Your task to perform on an android device: turn pop-ups off in chrome Image 0: 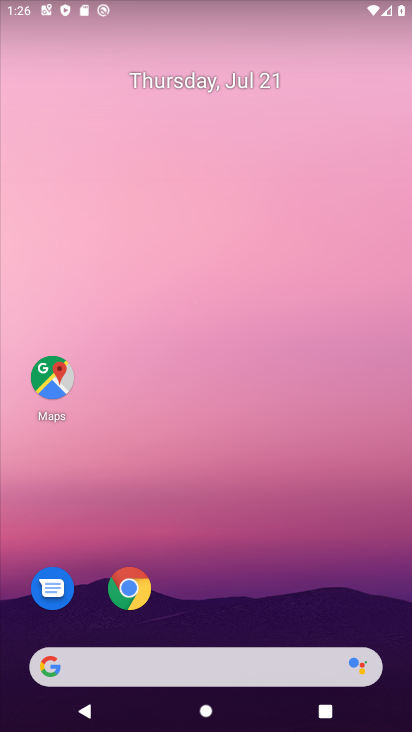
Step 0: click (138, 586)
Your task to perform on an android device: turn pop-ups off in chrome Image 1: 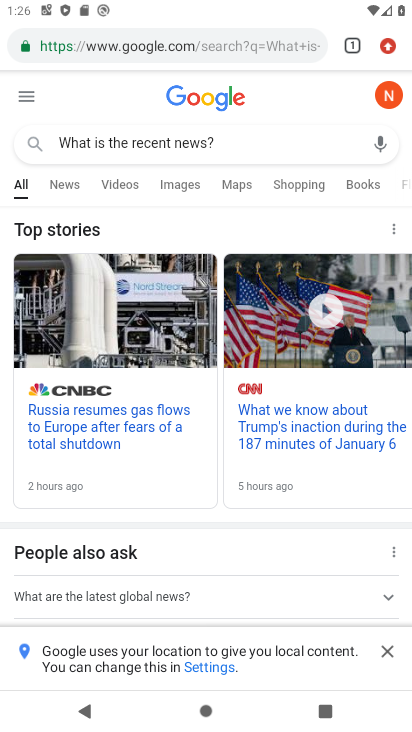
Step 1: click (387, 57)
Your task to perform on an android device: turn pop-ups off in chrome Image 2: 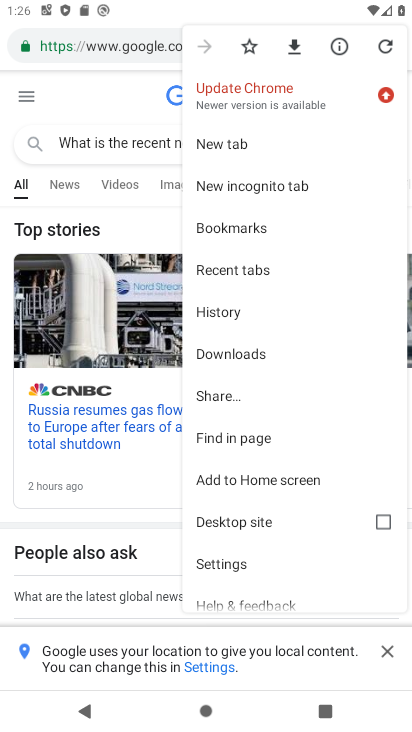
Step 2: click (244, 562)
Your task to perform on an android device: turn pop-ups off in chrome Image 3: 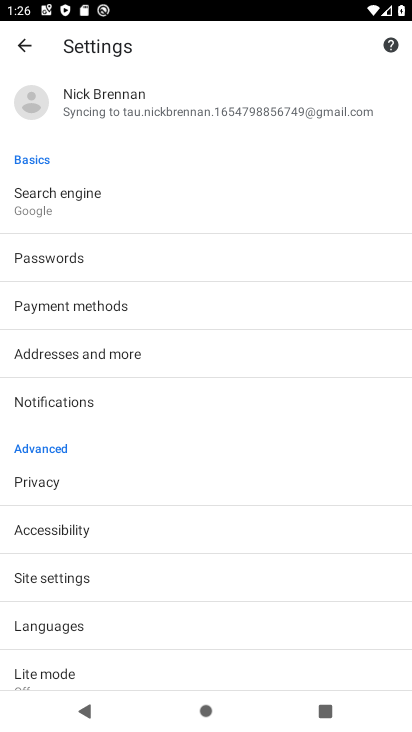
Step 3: click (135, 577)
Your task to perform on an android device: turn pop-ups off in chrome Image 4: 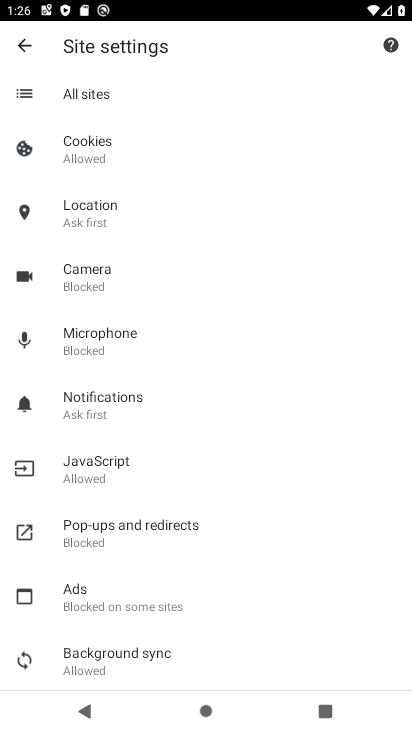
Step 4: click (131, 540)
Your task to perform on an android device: turn pop-ups off in chrome Image 5: 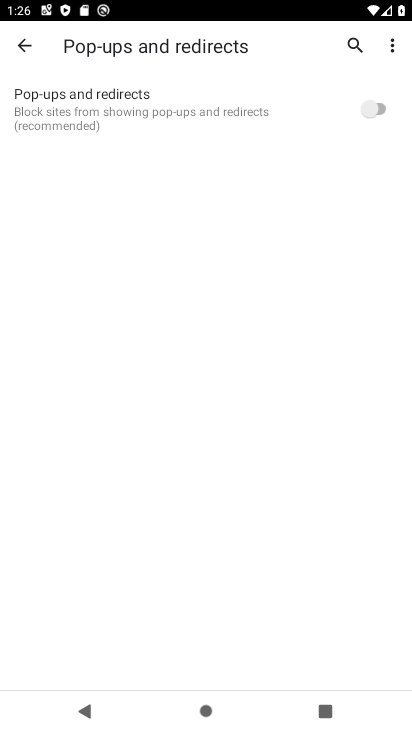
Step 5: task complete